Your task to perform on an android device: turn on data saver in the chrome app Image 0: 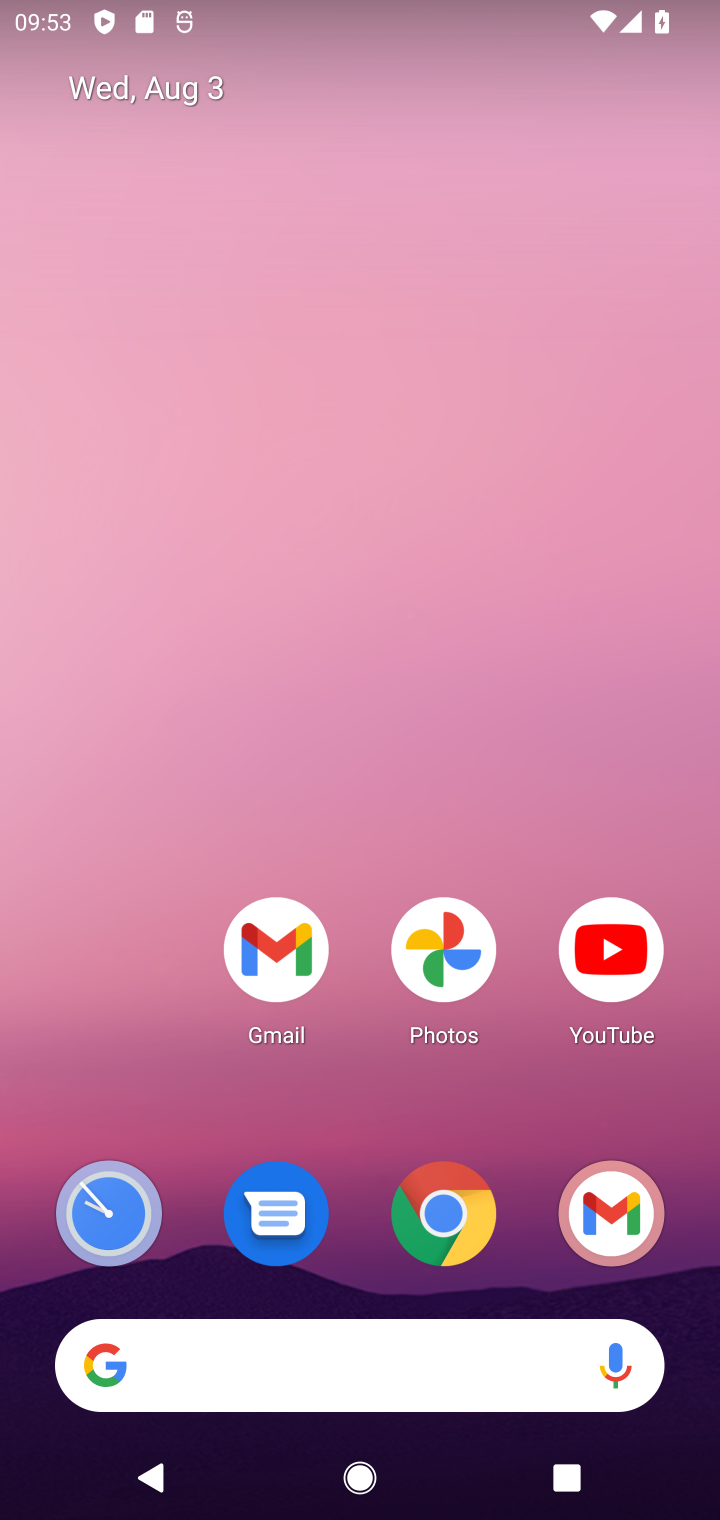
Step 0: click (424, 1197)
Your task to perform on an android device: turn on data saver in the chrome app Image 1: 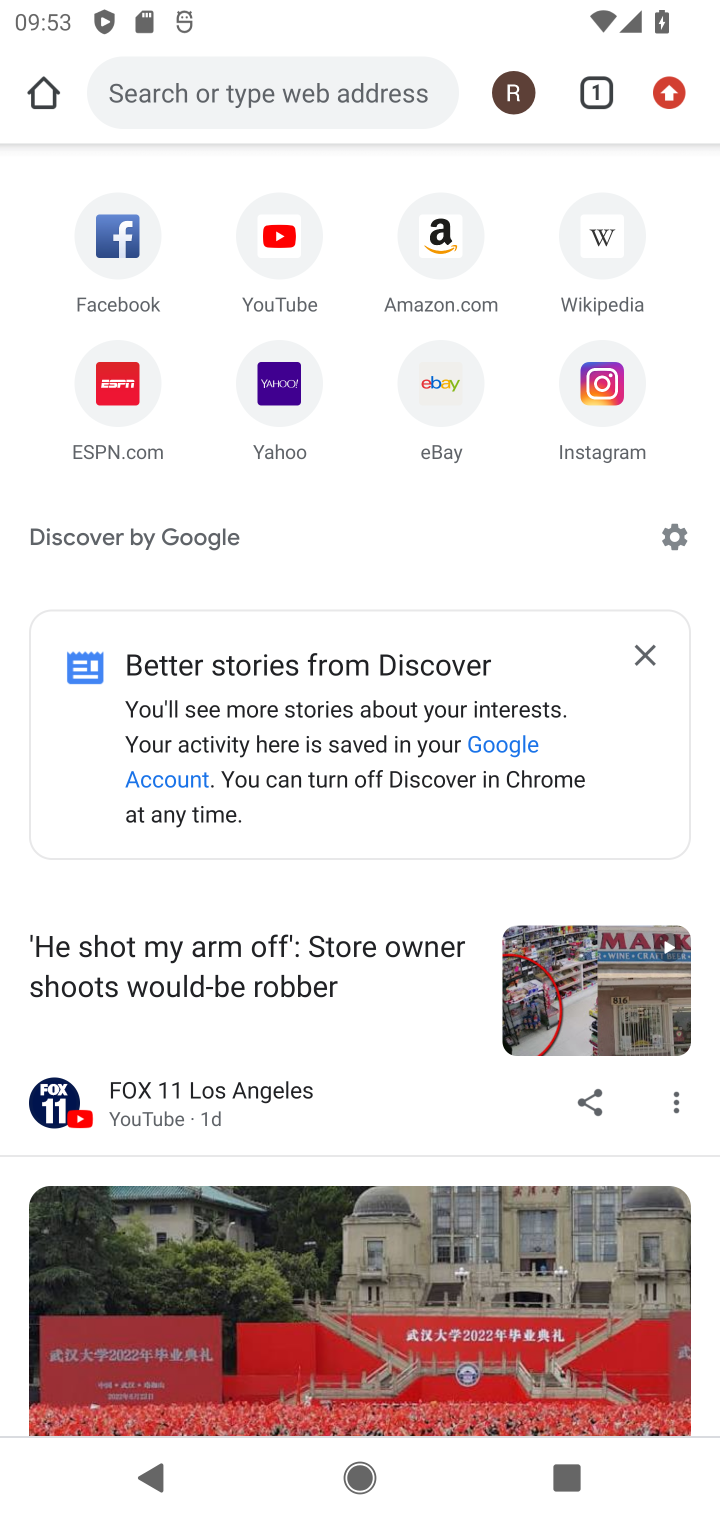
Step 1: click (659, 96)
Your task to perform on an android device: turn on data saver in the chrome app Image 2: 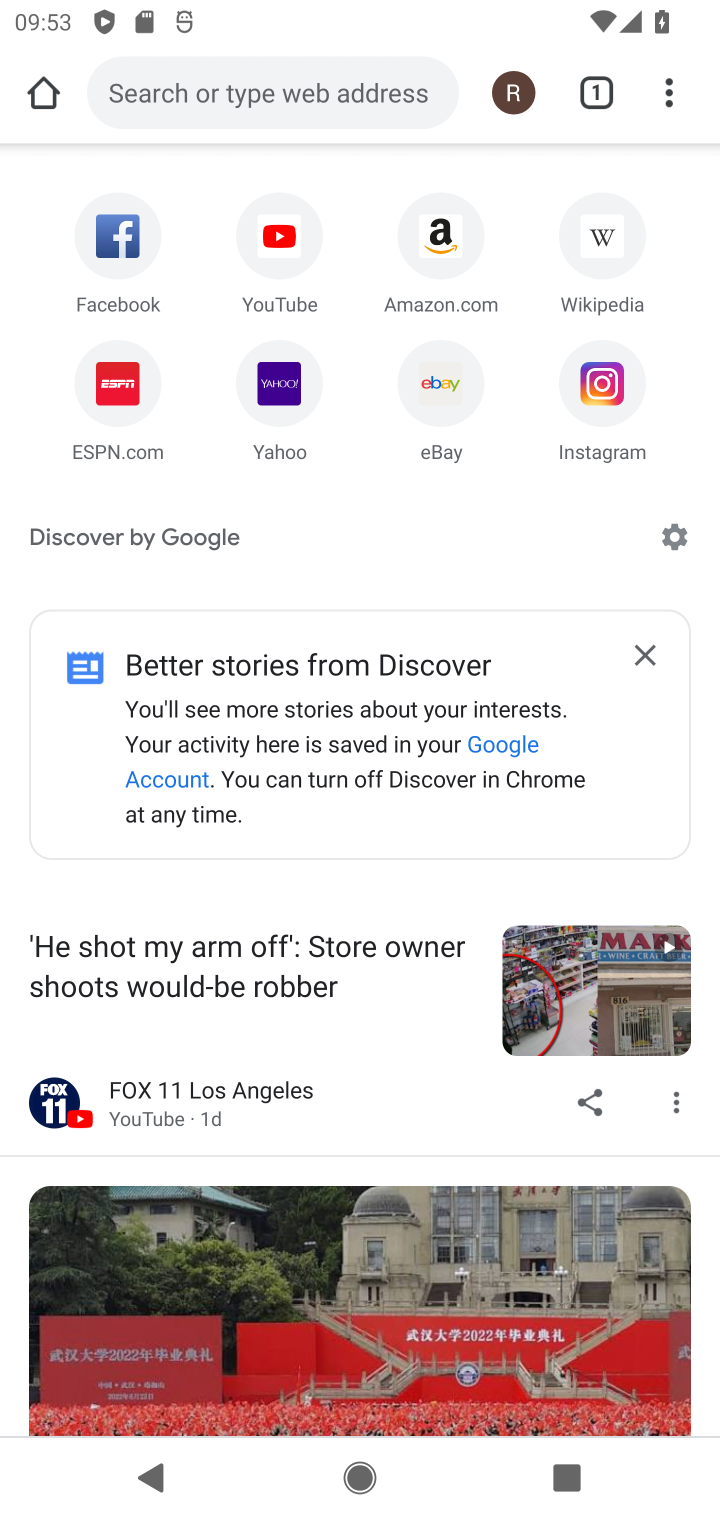
Step 2: click (672, 115)
Your task to perform on an android device: turn on data saver in the chrome app Image 3: 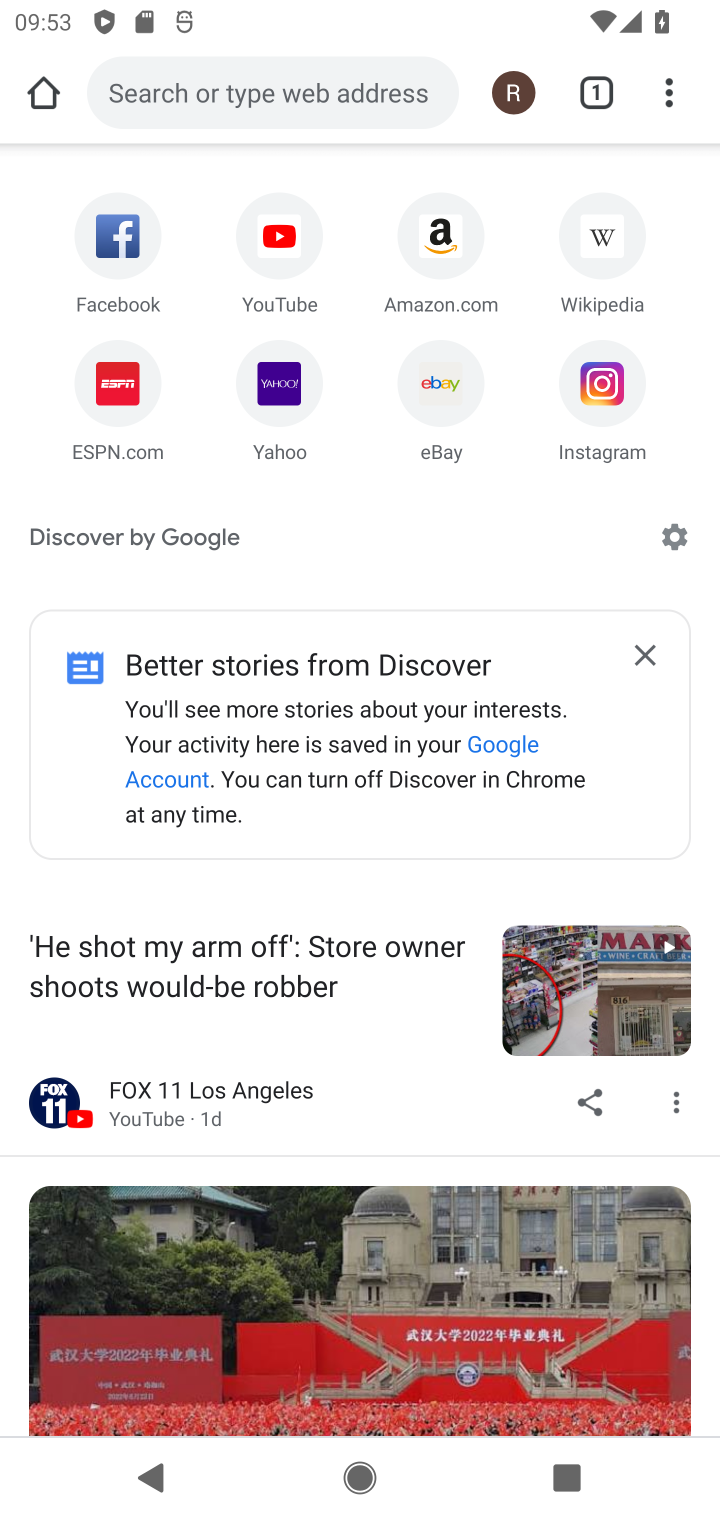
Step 3: click (670, 114)
Your task to perform on an android device: turn on data saver in the chrome app Image 4: 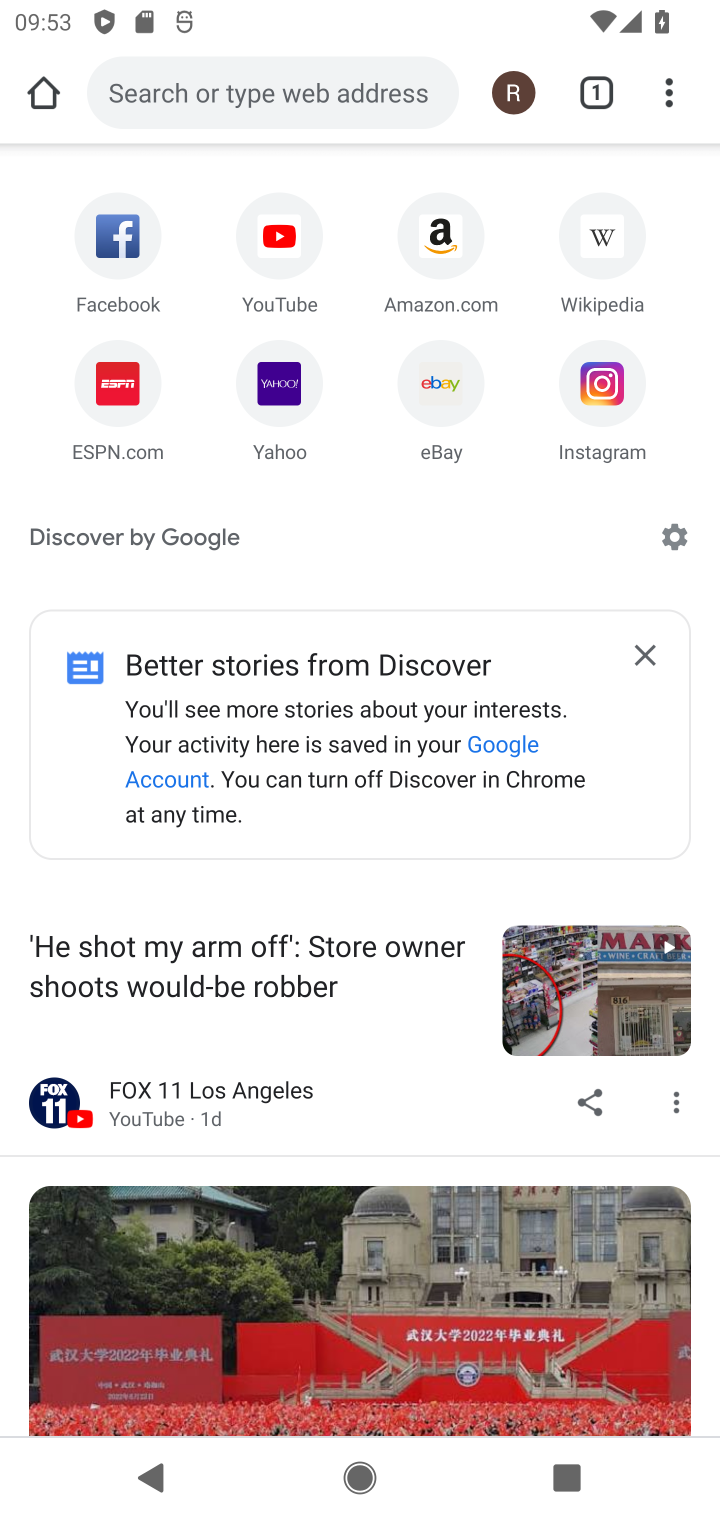
Step 4: click (663, 90)
Your task to perform on an android device: turn on data saver in the chrome app Image 5: 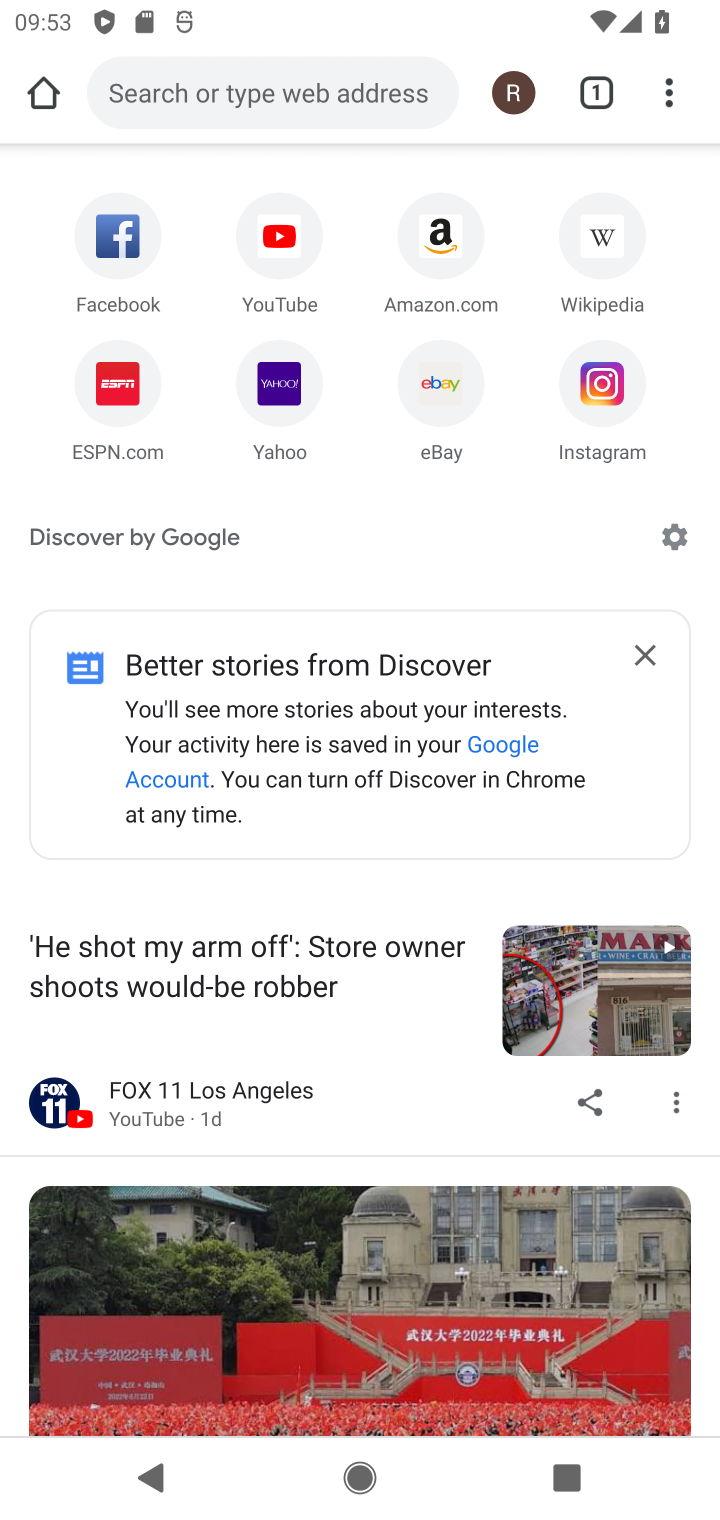
Step 5: click (666, 119)
Your task to perform on an android device: turn on data saver in the chrome app Image 6: 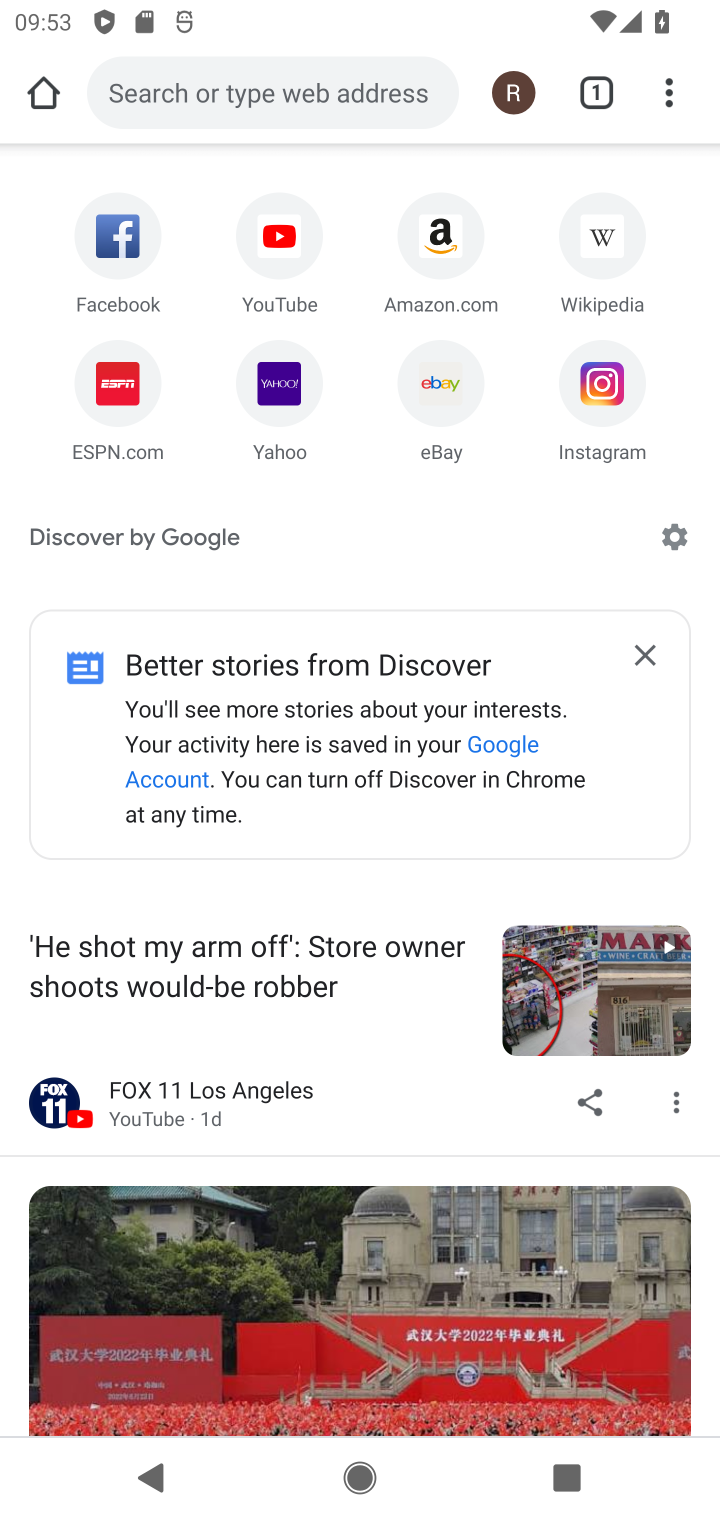
Step 6: click (661, 70)
Your task to perform on an android device: turn on data saver in the chrome app Image 7: 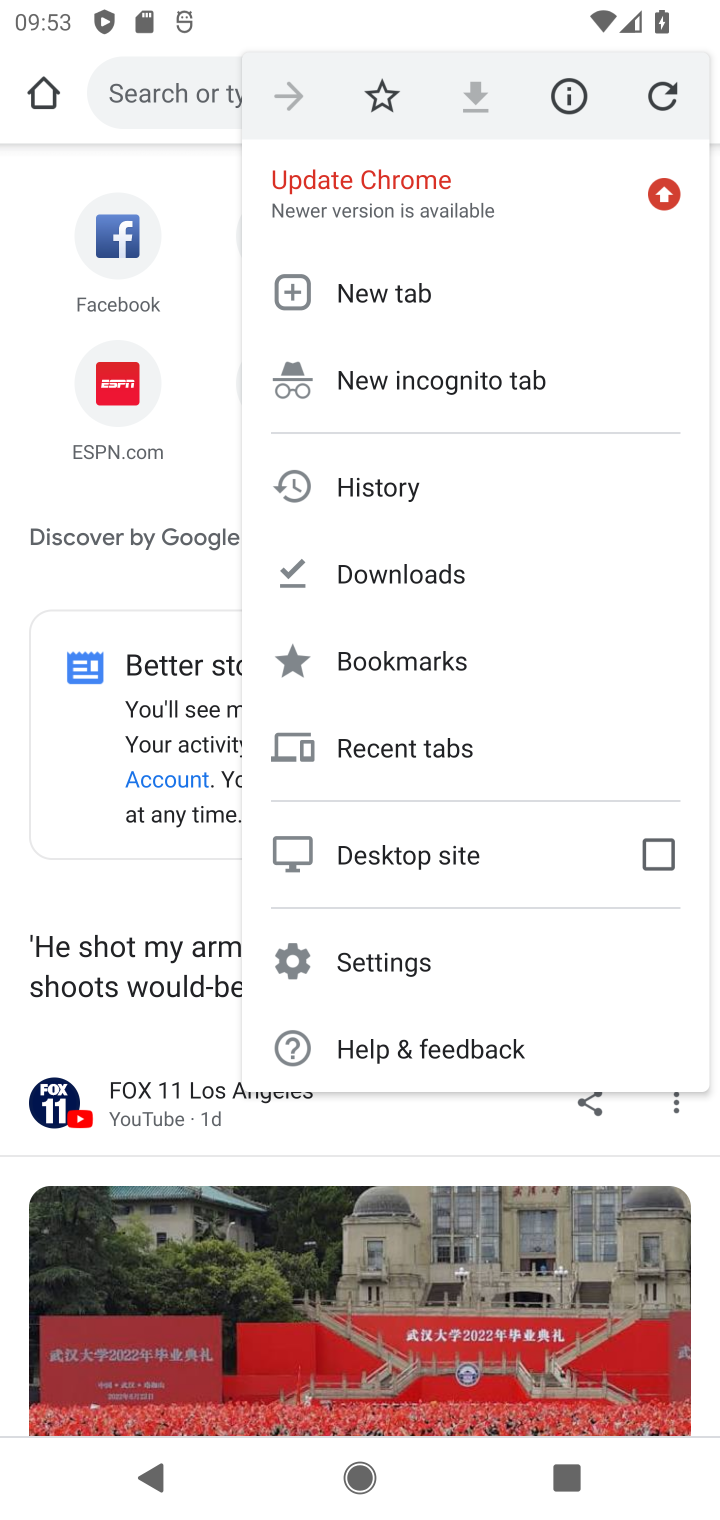
Step 7: click (286, 952)
Your task to perform on an android device: turn on data saver in the chrome app Image 8: 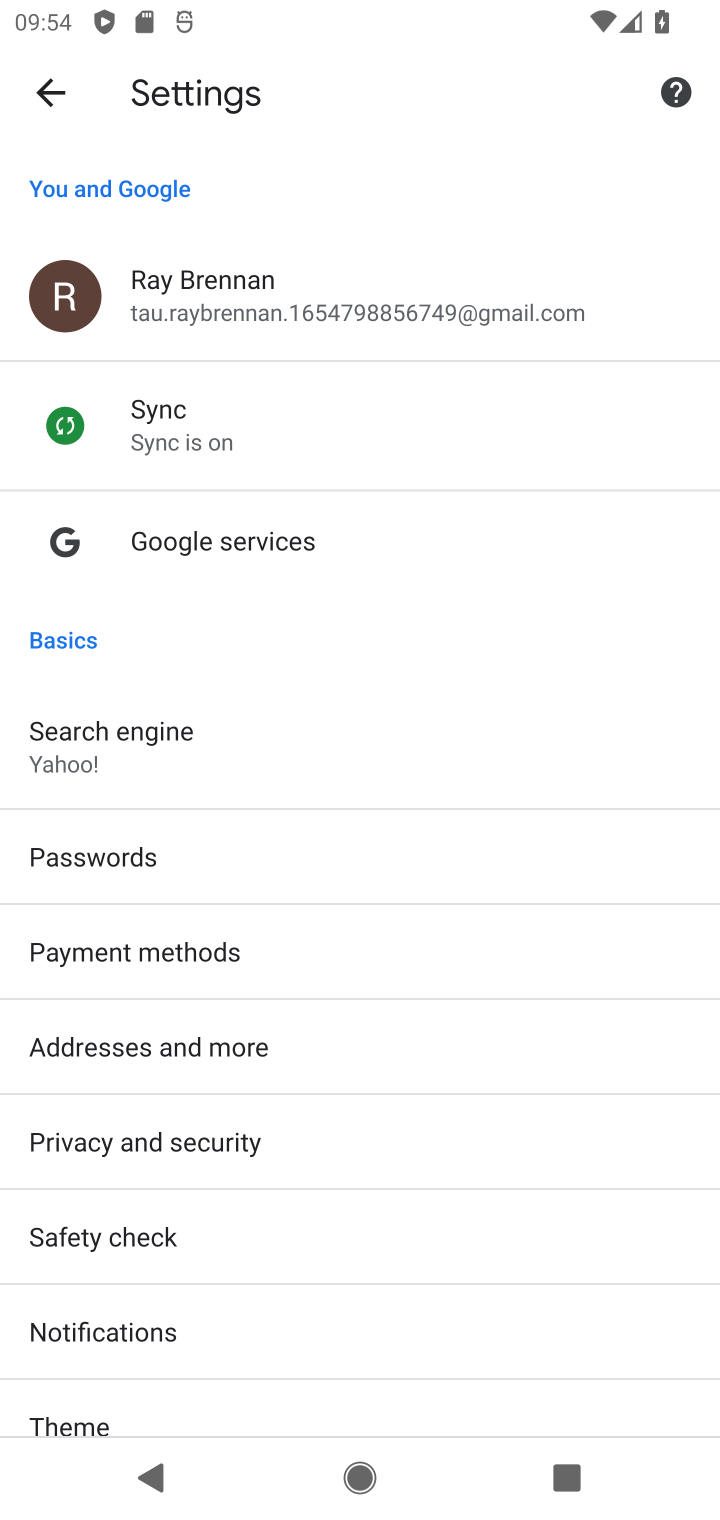
Step 8: drag from (122, 1206) to (165, 660)
Your task to perform on an android device: turn on data saver in the chrome app Image 9: 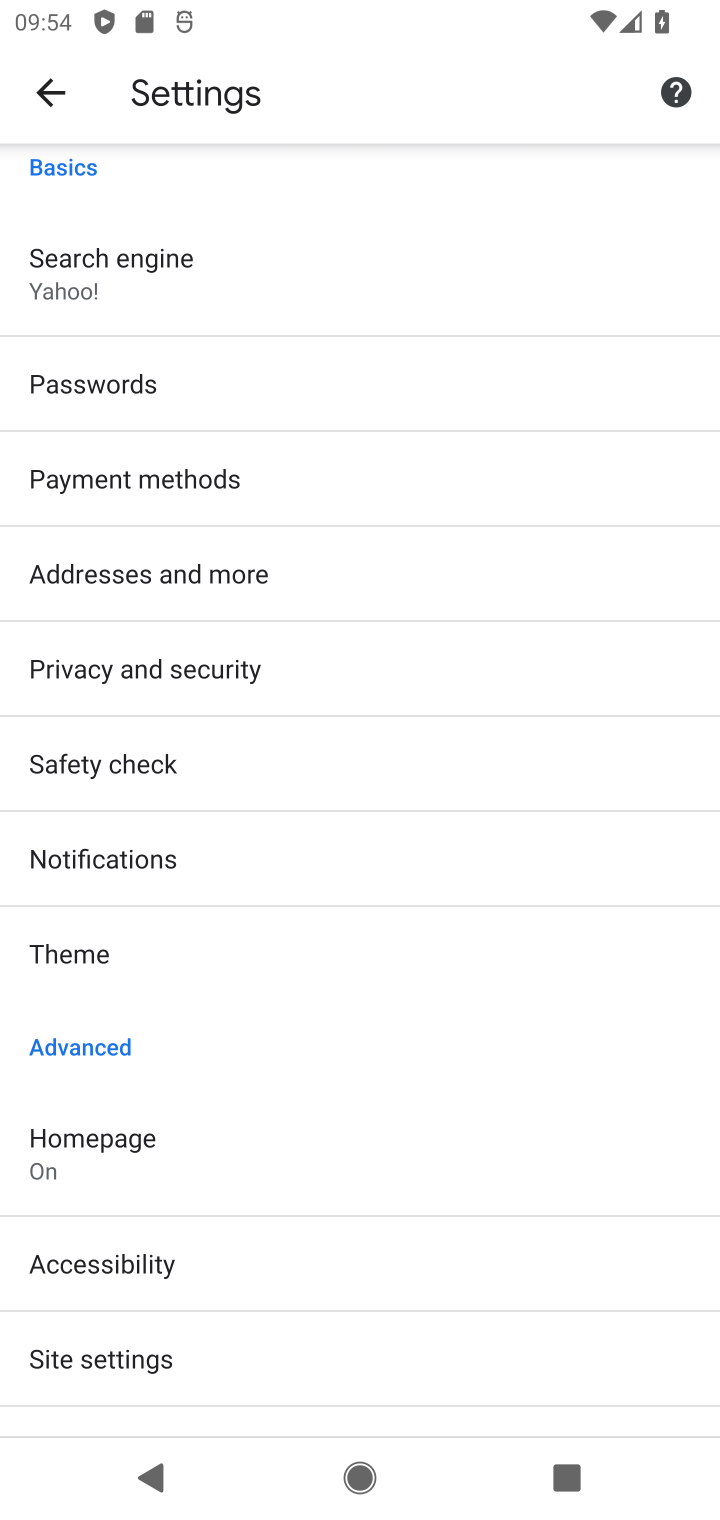
Step 9: drag from (229, 1052) to (285, 532)
Your task to perform on an android device: turn on data saver in the chrome app Image 10: 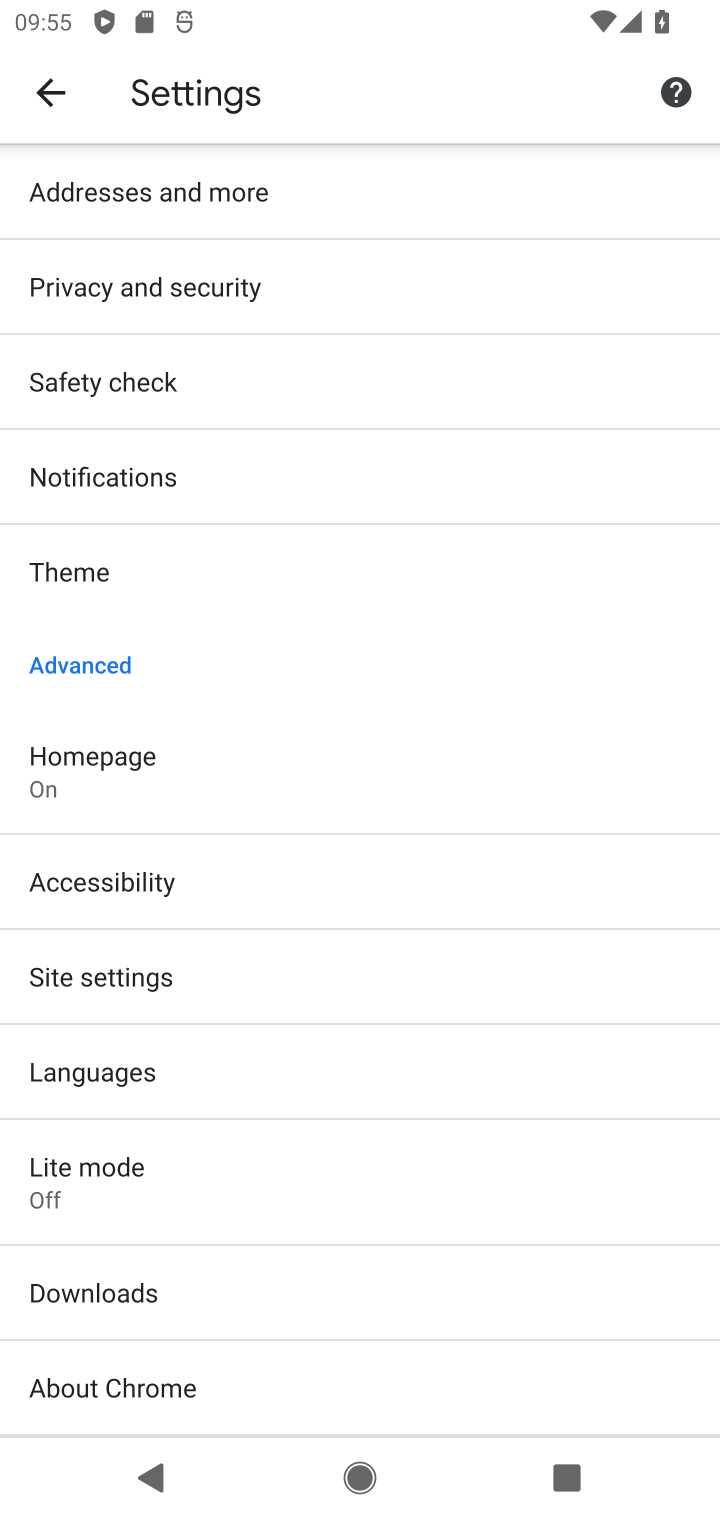
Step 10: click (254, 1165)
Your task to perform on an android device: turn on data saver in the chrome app Image 11: 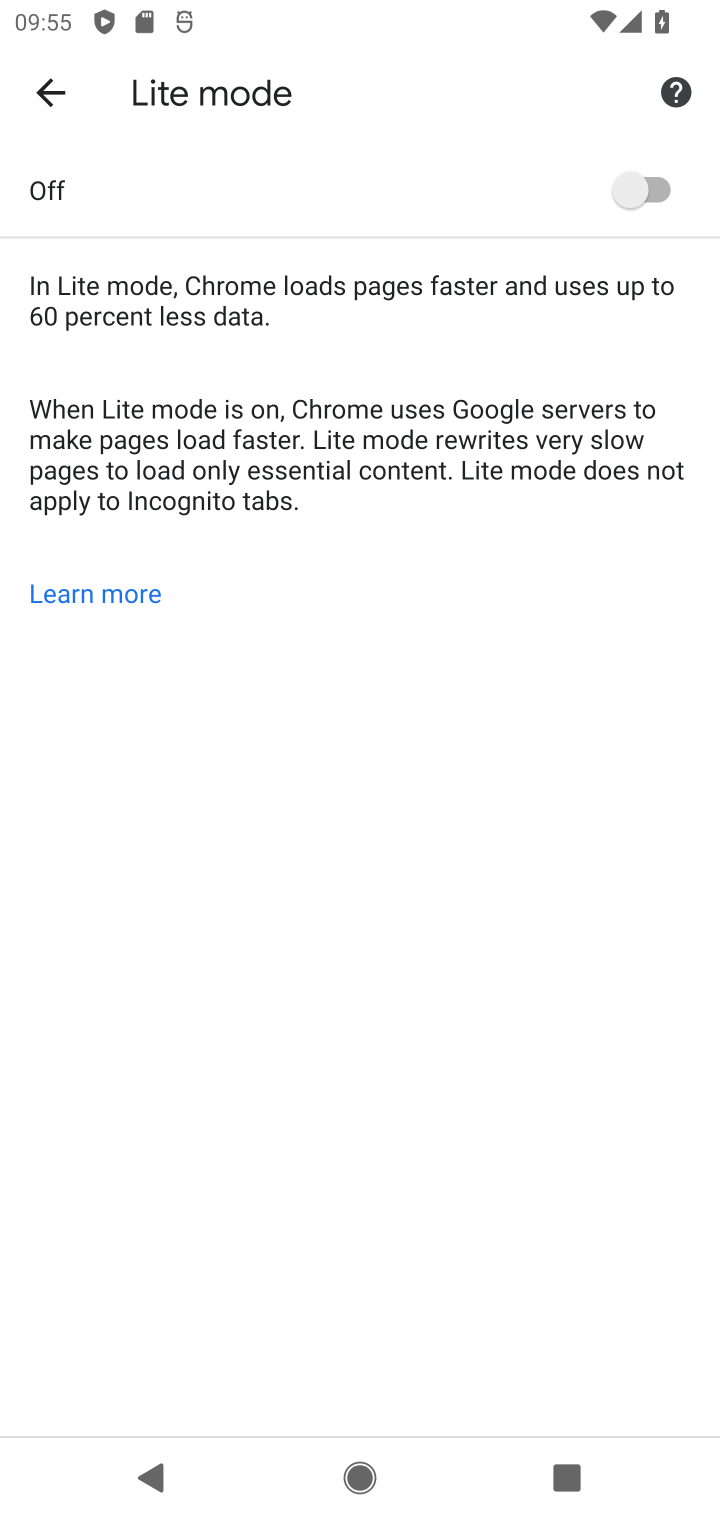
Step 11: click (633, 182)
Your task to perform on an android device: turn on data saver in the chrome app Image 12: 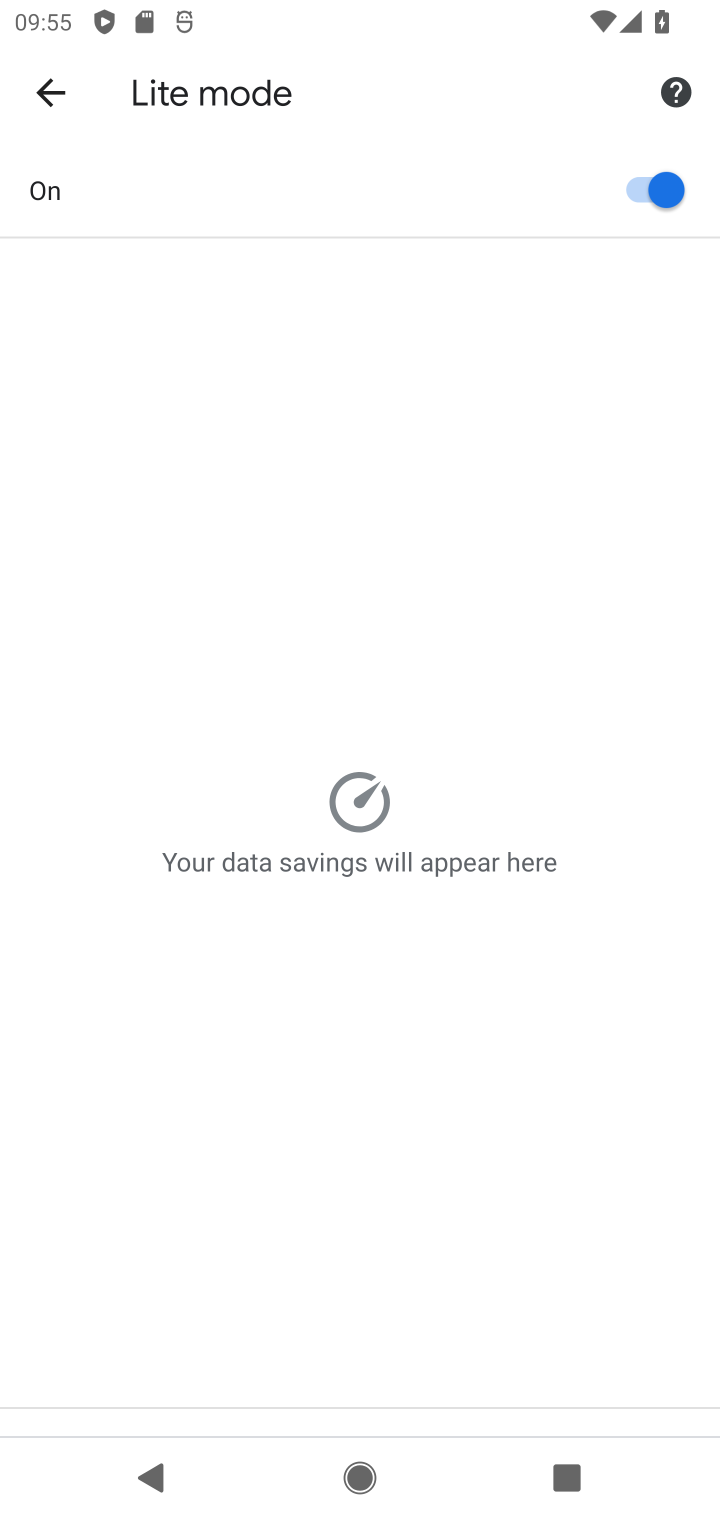
Step 12: task complete